Your task to perform on an android device: turn on showing notifications on the lock screen Image 0: 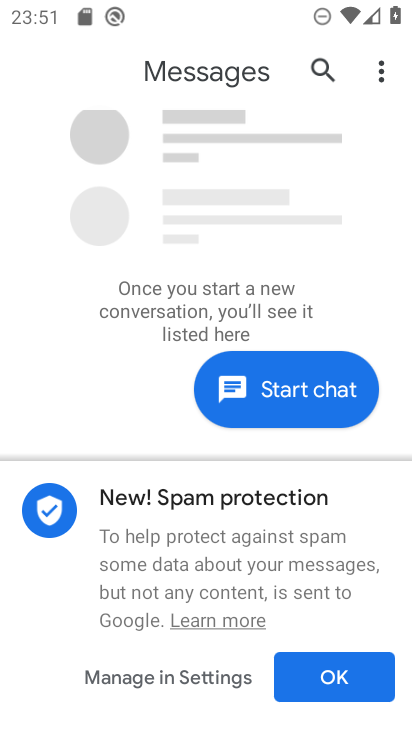
Step 0: press home button
Your task to perform on an android device: turn on showing notifications on the lock screen Image 1: 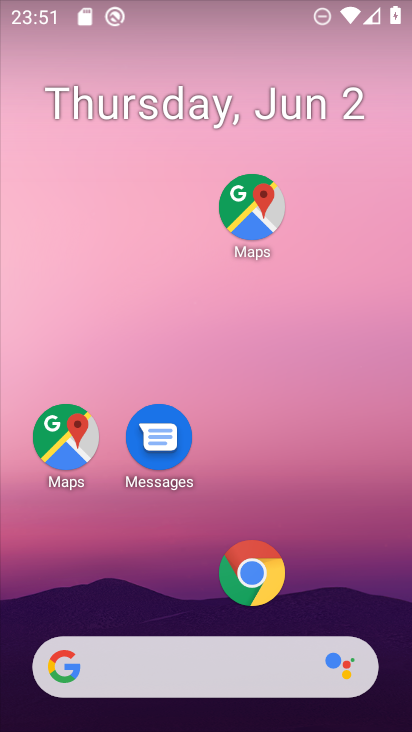
Step 1: drag from (318, 587) to (381, 21)
Your task to perform on an android device: turn on showing notifications on the lock screen Image 2: 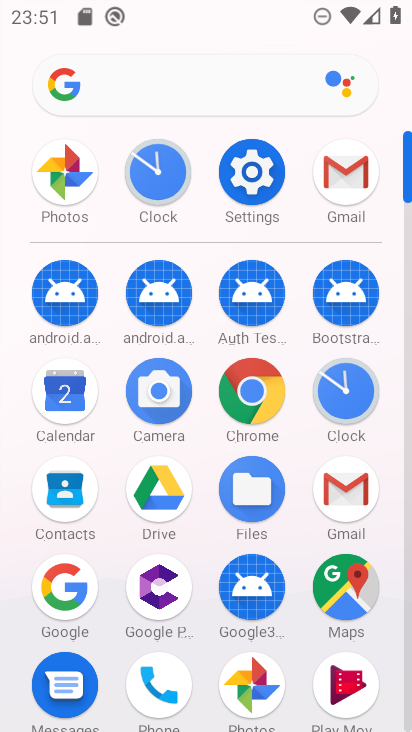
Step 2: click (251, 206)
Your task to perform on an android device: turn on showing notifications on the lock screen Image 3: 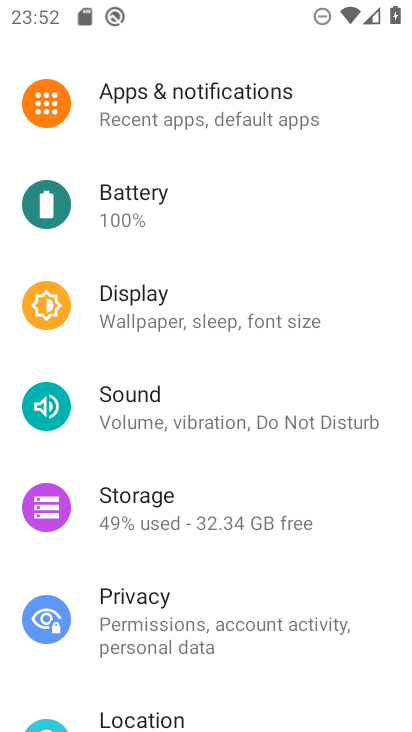
Step 3: click (218, 78)
Your task to perform on an android device: turn on showing notifications on the lock screen Image 4: 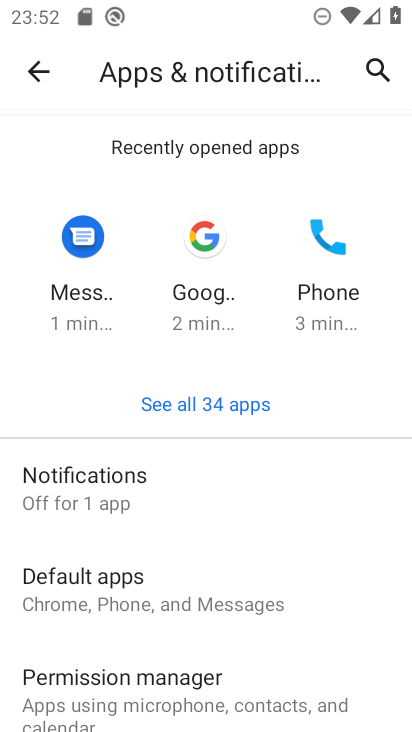
Step 4: click (122, 471)
Your task to perform on an android device: turn on showing notifications on the lock screen Image 5: 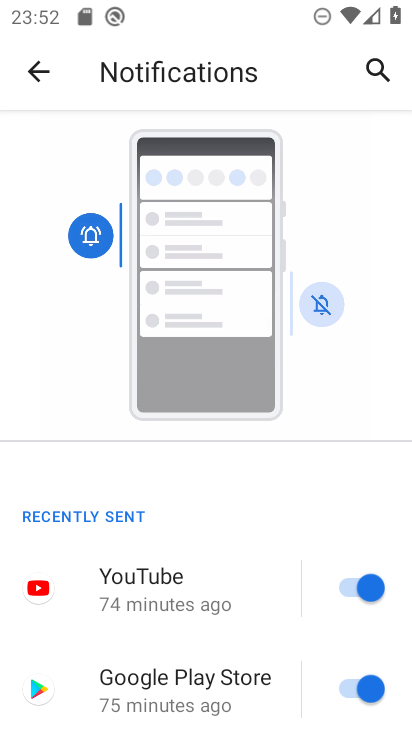
Step 5: drag from (292, 676) to (369, 378)
Your task to perform on an android device: turn on showing notifications on the lock screen Image 6: 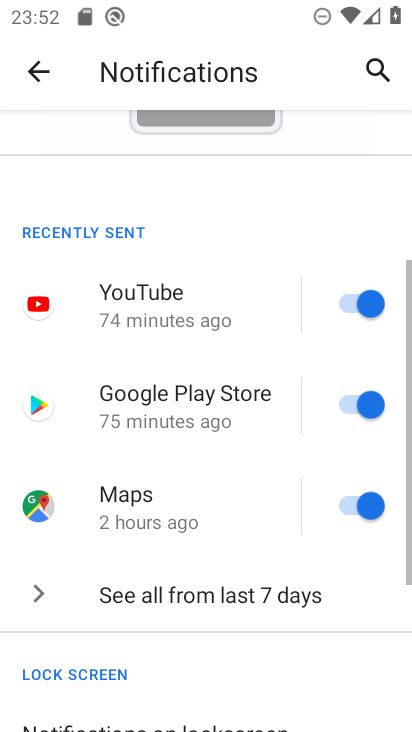
Step 6: drag from (246, 672) to (295, 64)
Your task to perform on an android device: turn on showing notifications on the lock screen Image 7: 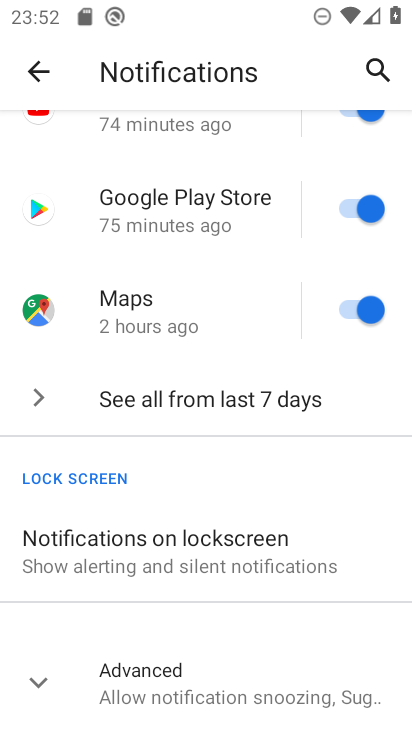
Step 7: click (223, 705)
Your task to perform on an android device: turn on showing notifications on the lock screen Image 8: 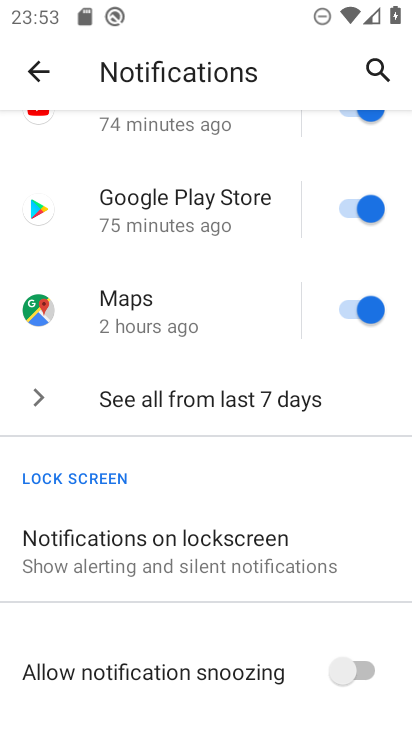
Step 8: click (286, 530)
Your task to perform on an android device: turn on showing notifications on the lock screen Image 9: 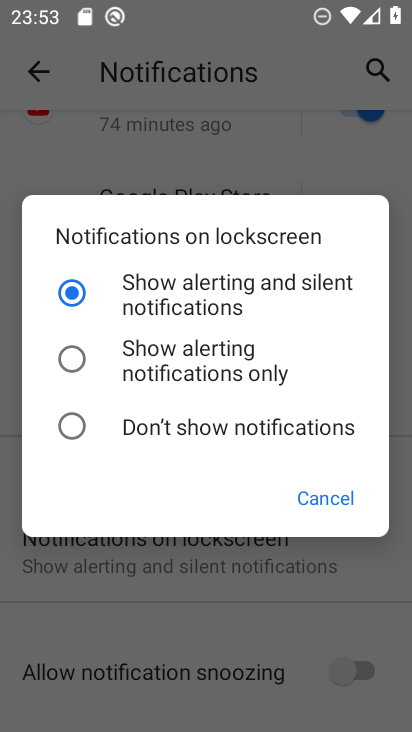
Step 9: task complete